Your task to perform on an android device: clear history in the chrome app Image 0: 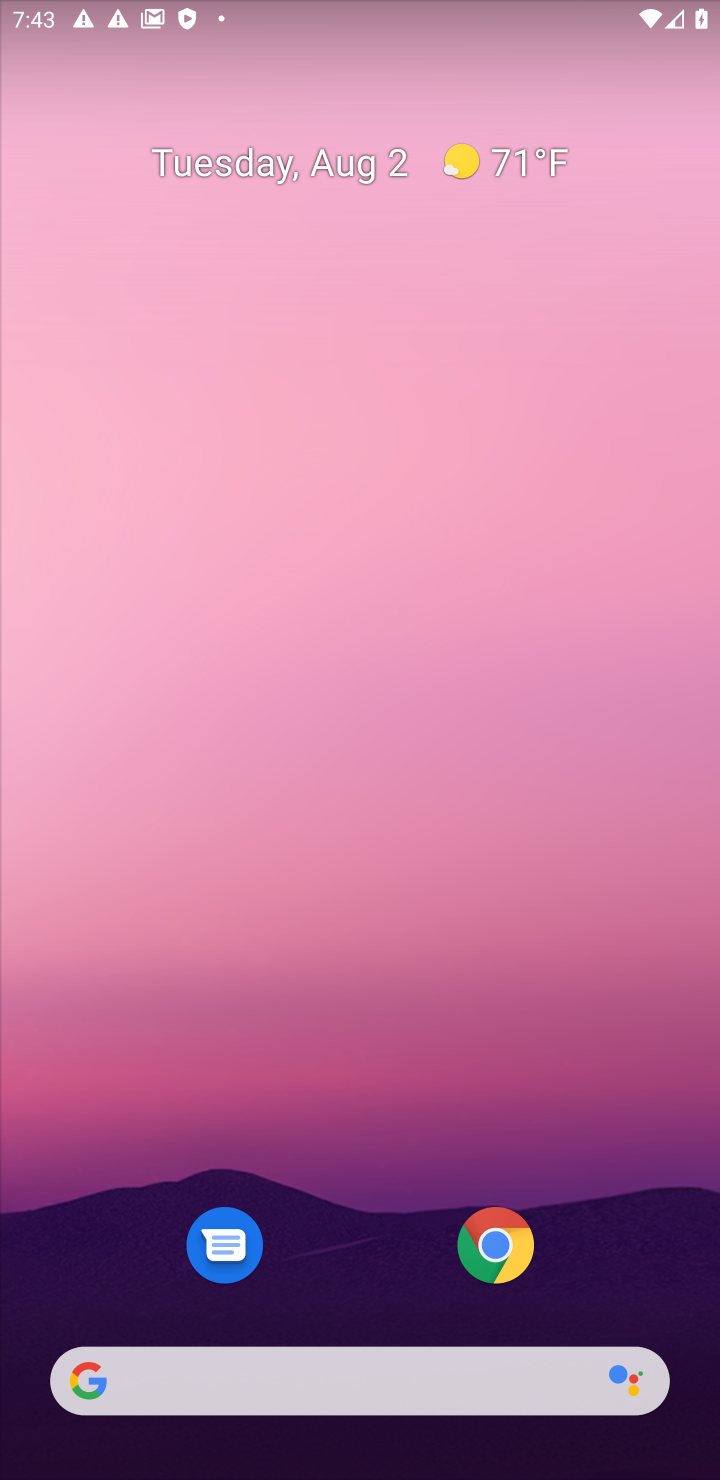
Step 0: click (491, 1243)
Your task to perform on an android device: clear history in the chrome app Image 1: 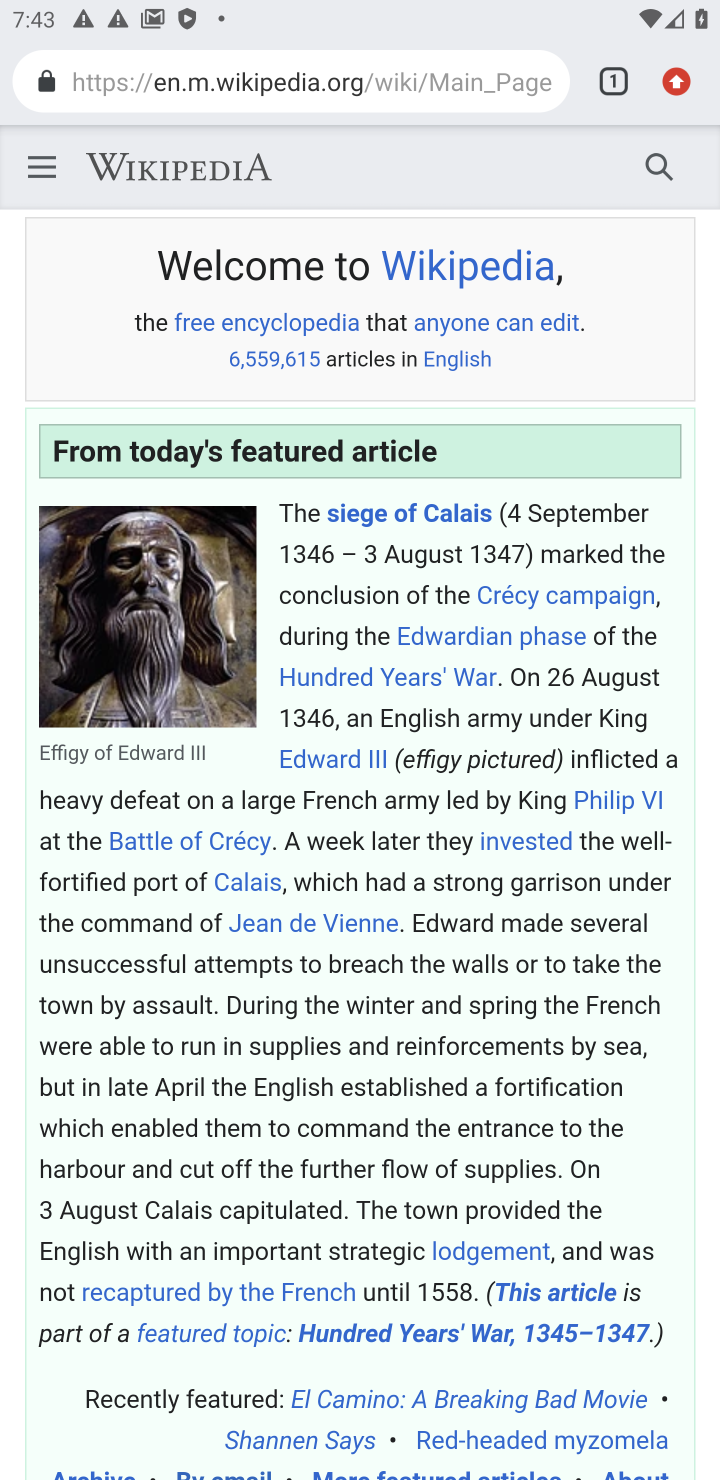
Step 1: click (667, 72)
Your task to perform on an android device: clear history in the chrome app Image 2: 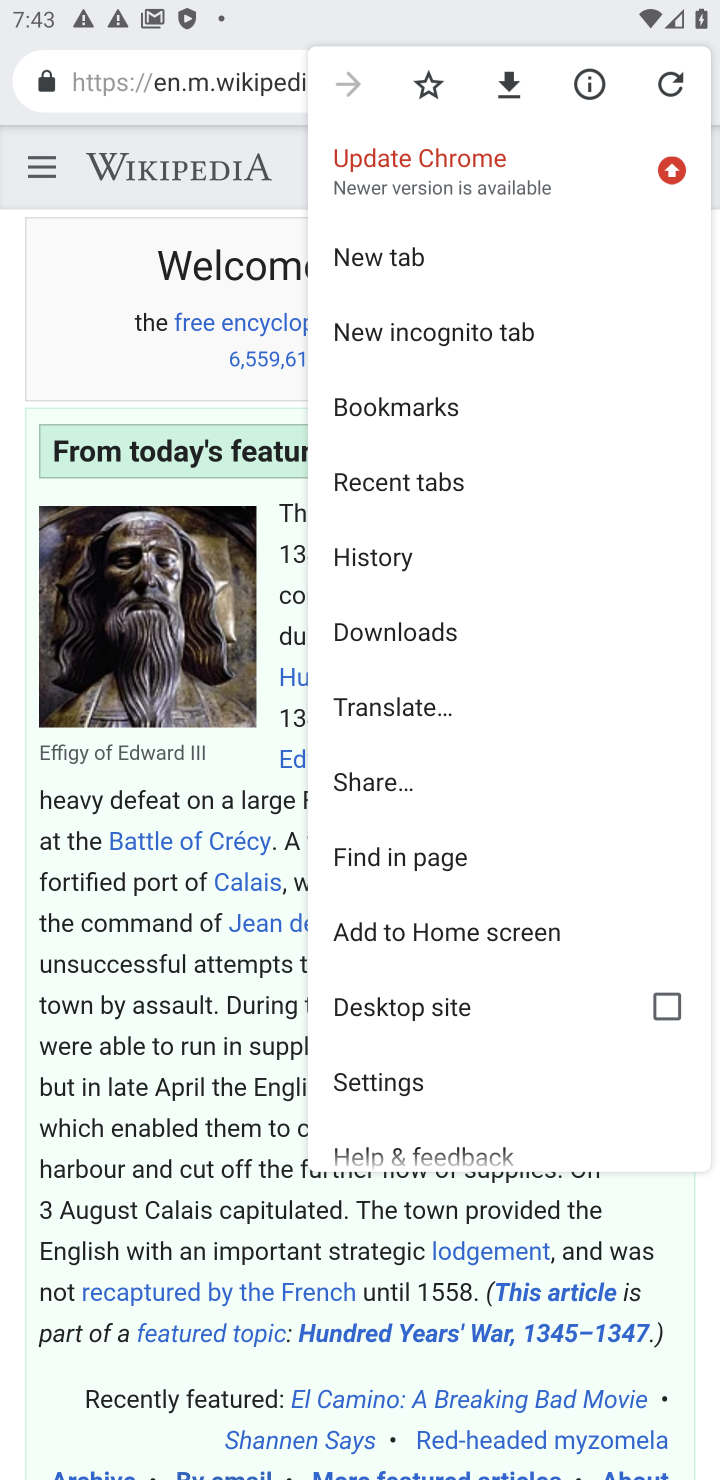
Step 2: click (402, 566)
Your task to perform on an android device: clear history in the chrome app Image 3: 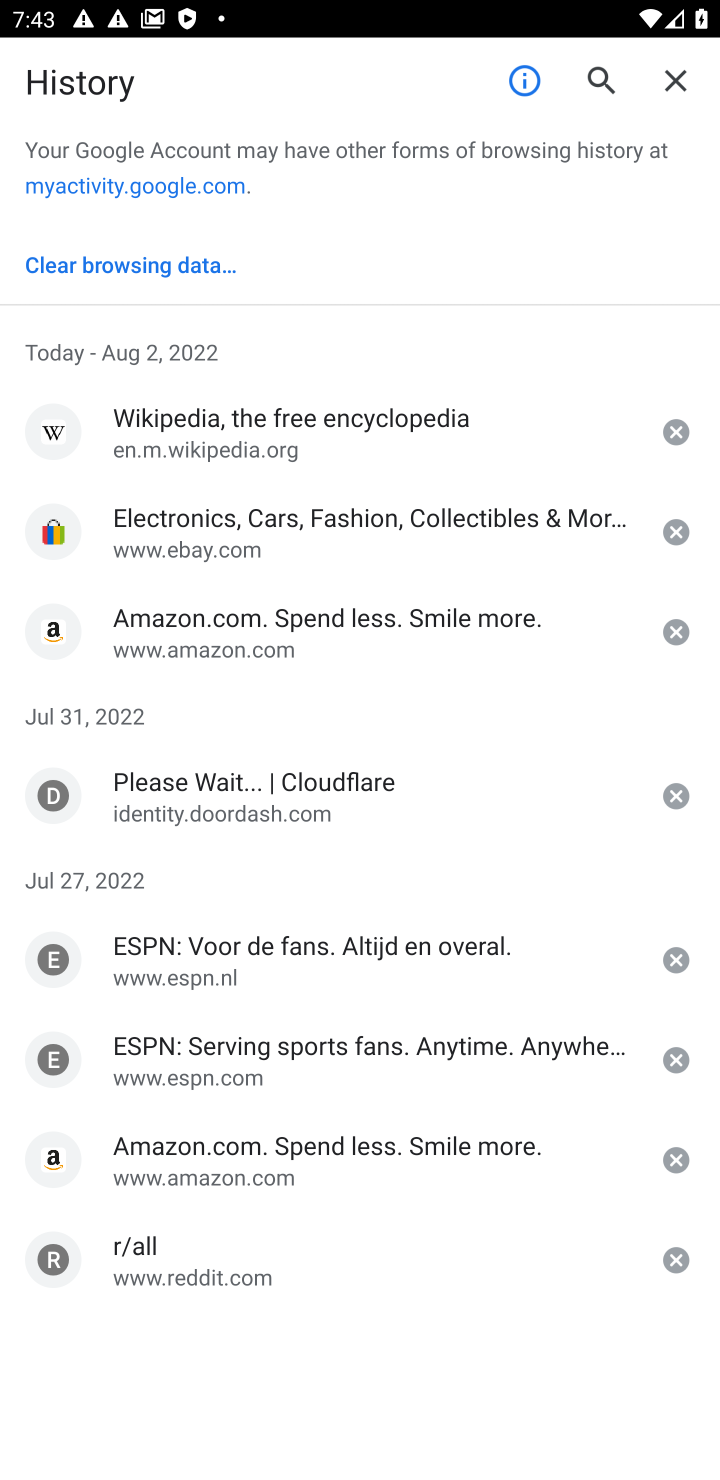
Step 3: click (89, 260)
Your task to perform on an android device: clear history in the chrome app Image 4: 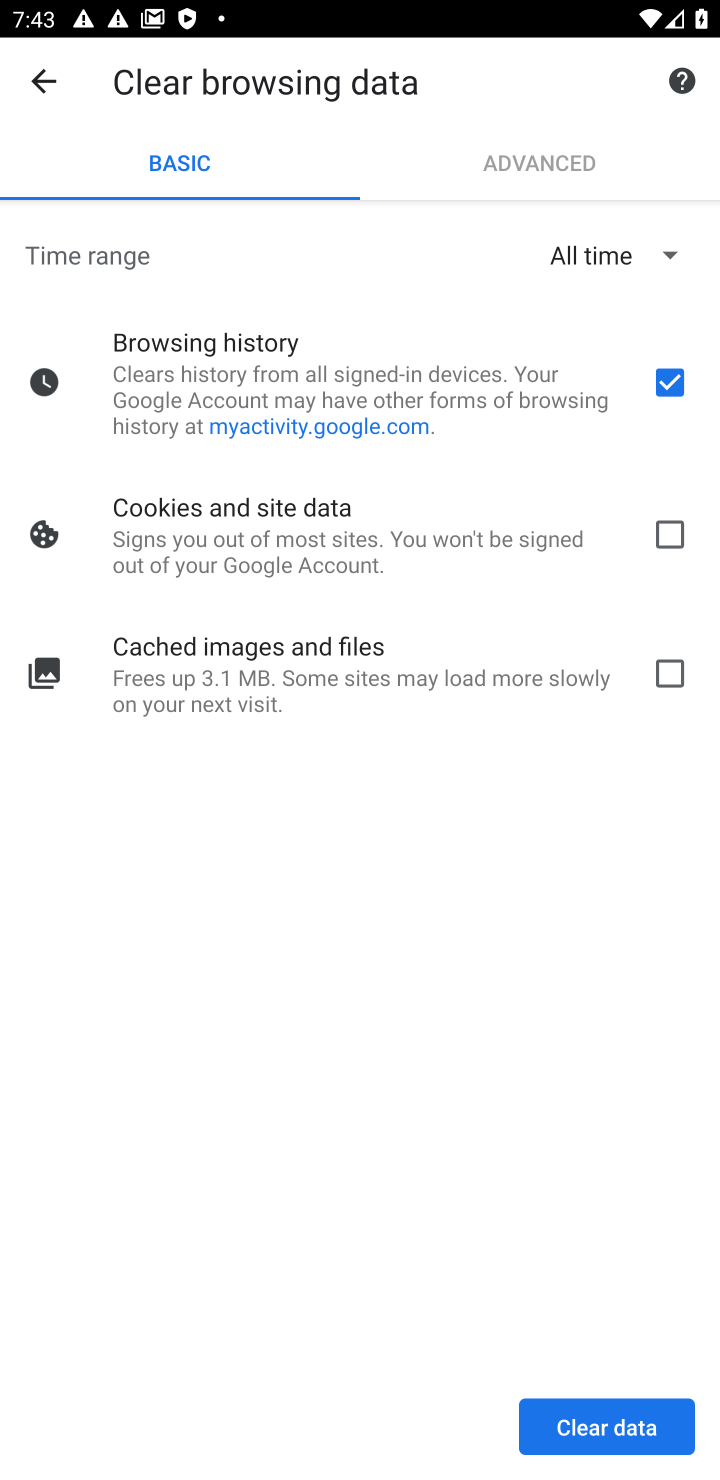
Step 4: click (665, 539)
Your task to perform on an android device: clear history in the chrome app Image 5: 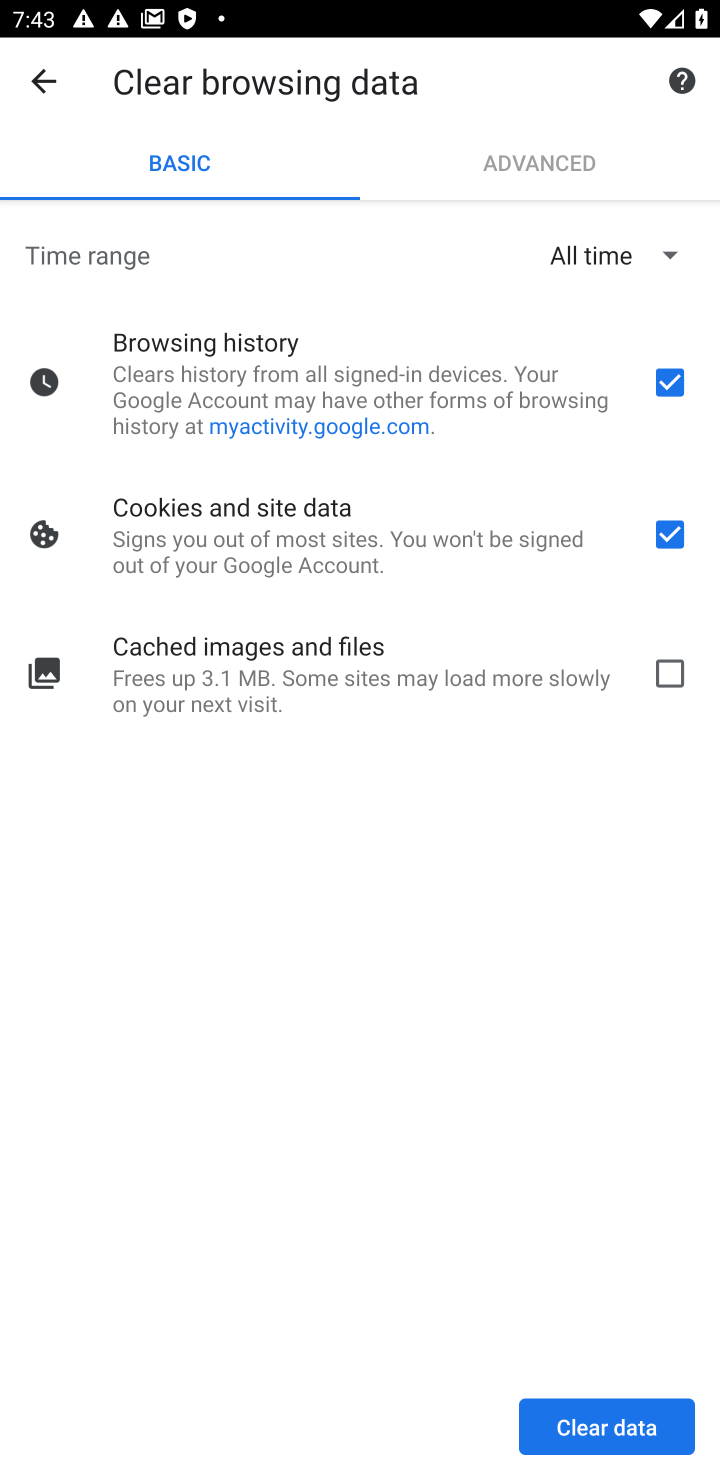
Step 5: click (669, 680)
Your task to perform on an android device: clear history in the chrome app Image 6: 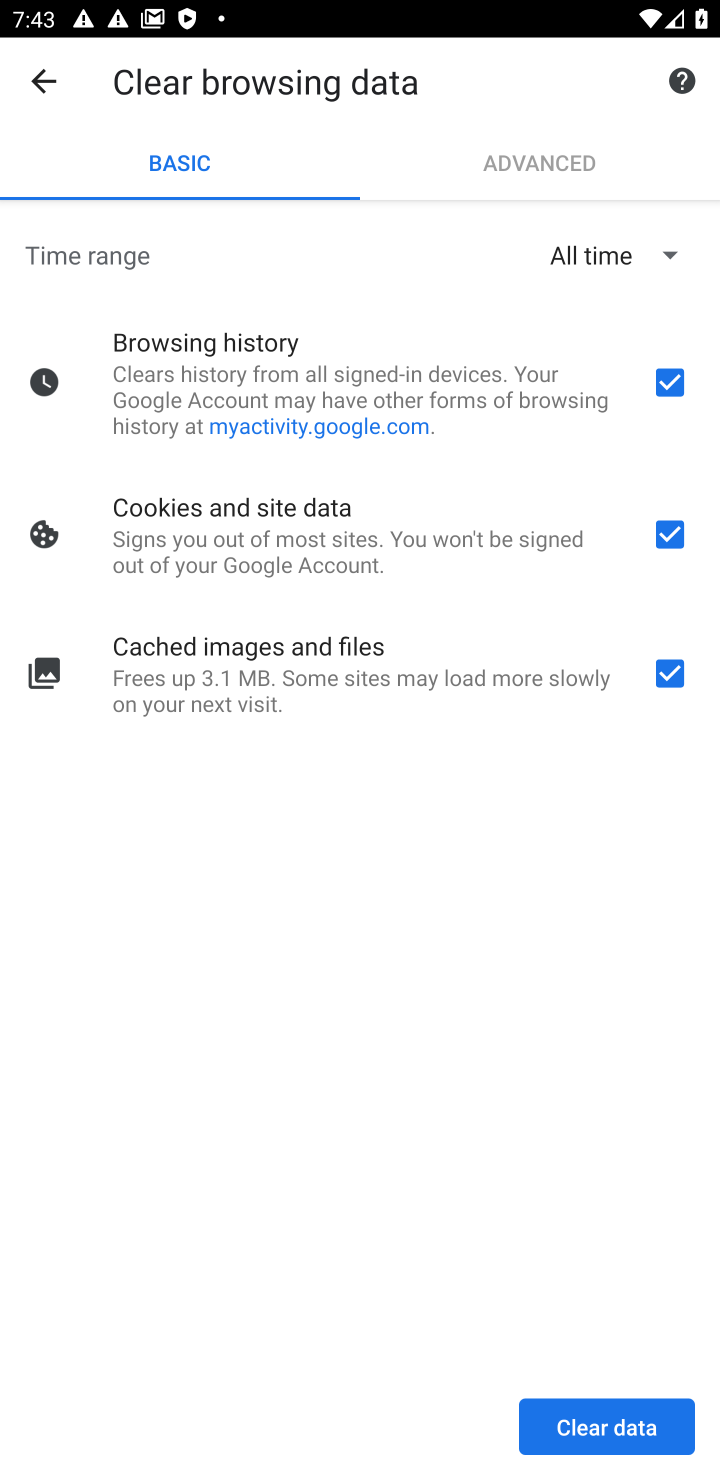
Step 6: click (608, 1447)
Your task to perform on an android device: clear history in the chrome app Image 7: 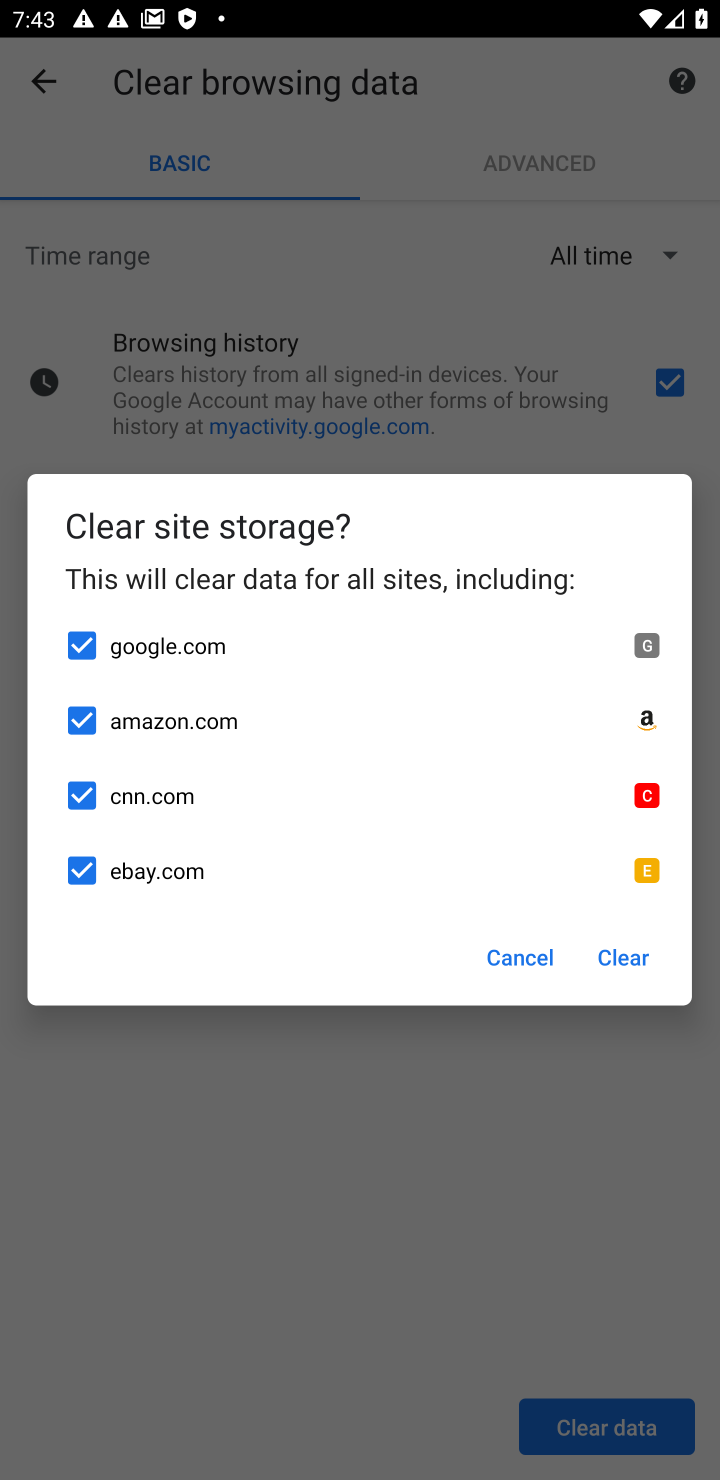
Step 7: click (613, 959)
Your task to perform on an android device: clear history in the chrome app Image 8: 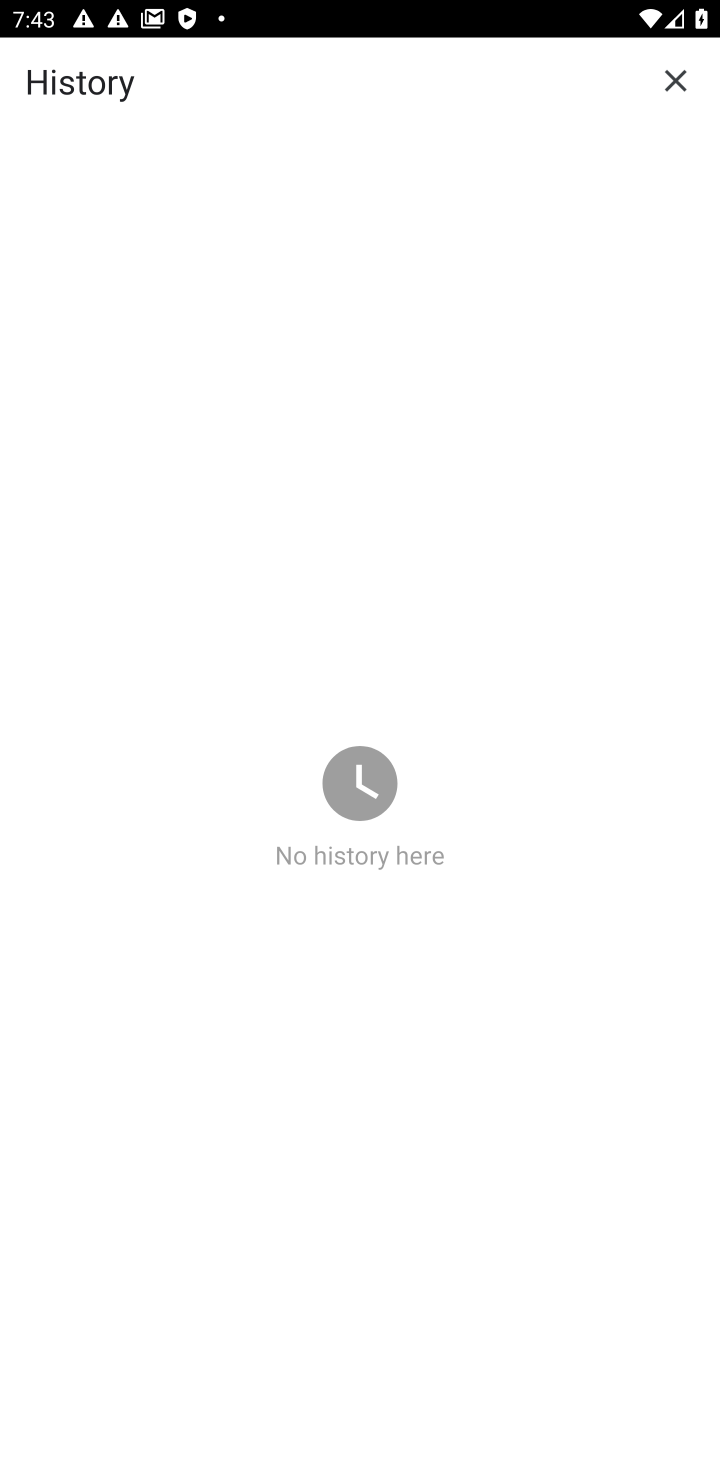
Step 8: task complete